Your task to perform on an android device: Go to calendar. Show me events next week Image 0: 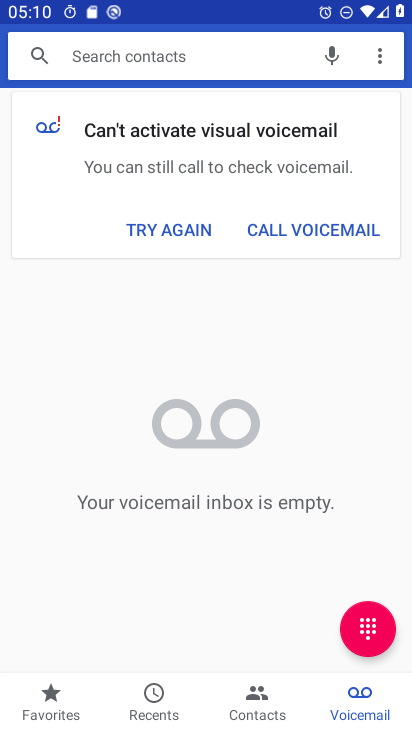
Step 0: press home button
Your task to perform on an android device: Go to calendar. Show me events next week Image 1: 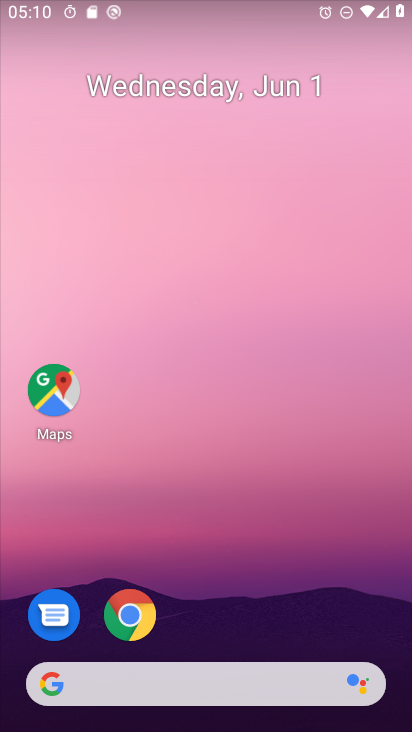
Step 1: drag from (101, 646) to (294, 7)
Your task to perform on an android device: Go to calendar. Show me events next week Image 2: 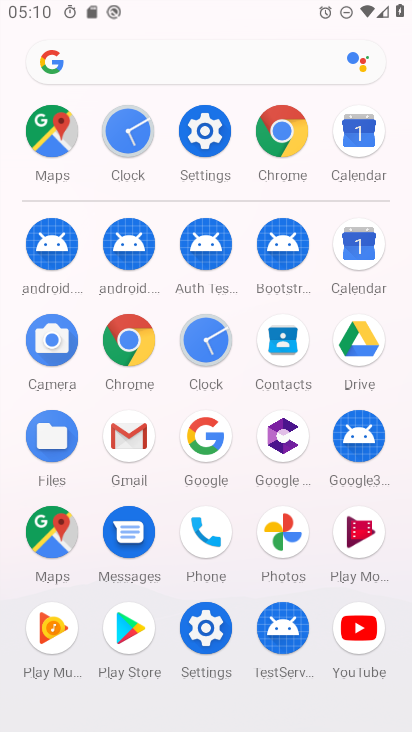
Step 2: click (363, 242)
Your task to perform on an android device: Go to calendar. Show me events next week Image 3: 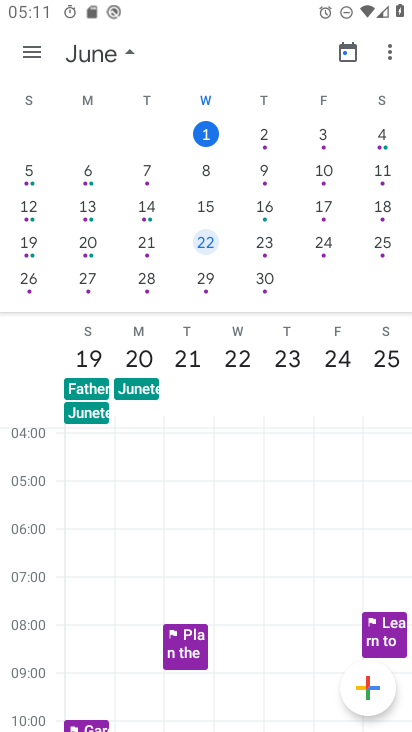
Step 3: click (383, 176)
Your task to perform on an android device: Go to calendar. Show me events next week Image 4: 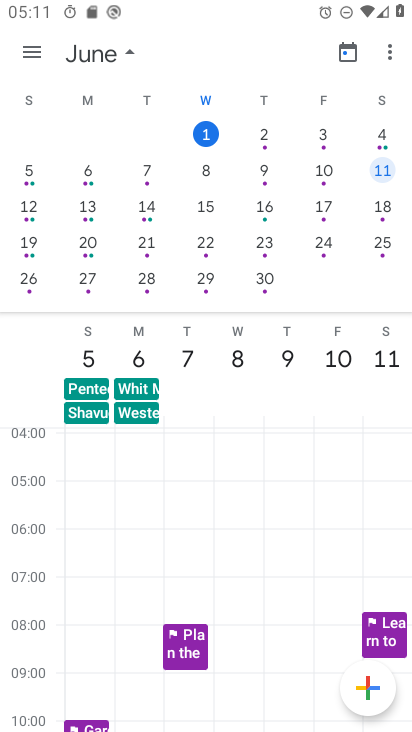
Step 4: task complete